Your task to perform on an android device: turn vacation reply on in the gmail app Image 0: 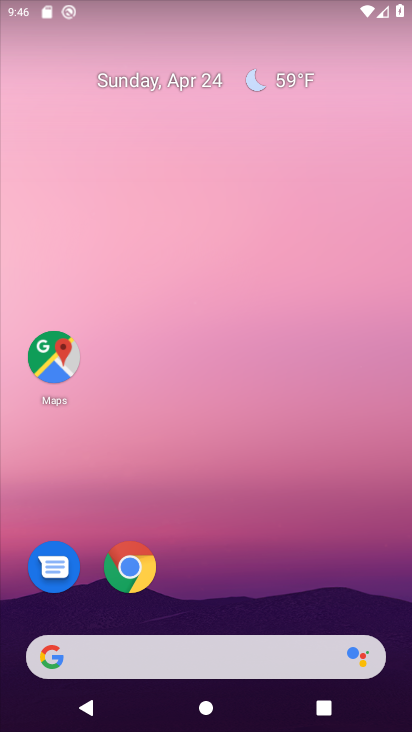
Step 0: drag from (355, 273) to (335, 84)
Your task to perform on an android device: turn vacation reply on in the gmail app Image 1: 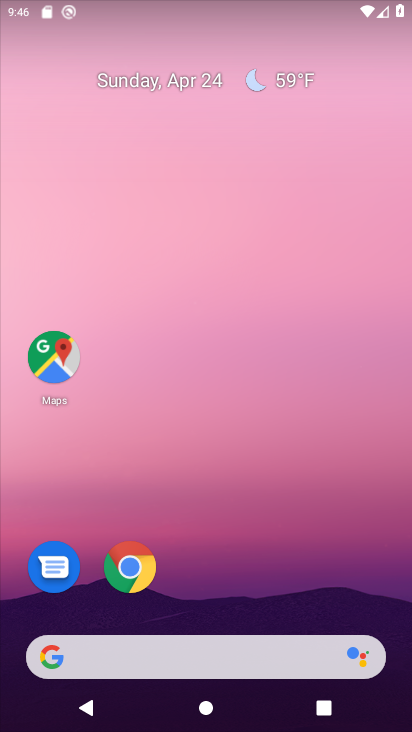
Step 1: drag from (385, 318) to (377, 201)
Your task to perform on an android device: turn vacation reply on in the gmail app Image 2: 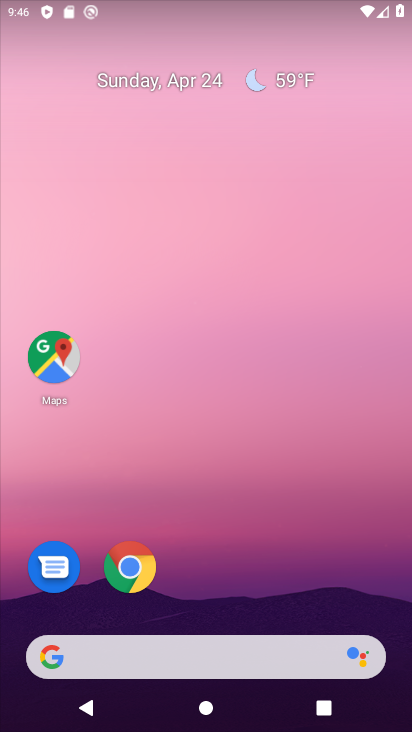
Step 2: drag from (384, 446) to (384, 216)
Your task to perform on an android device: turn vacation reply on in the gmail app Image 3: 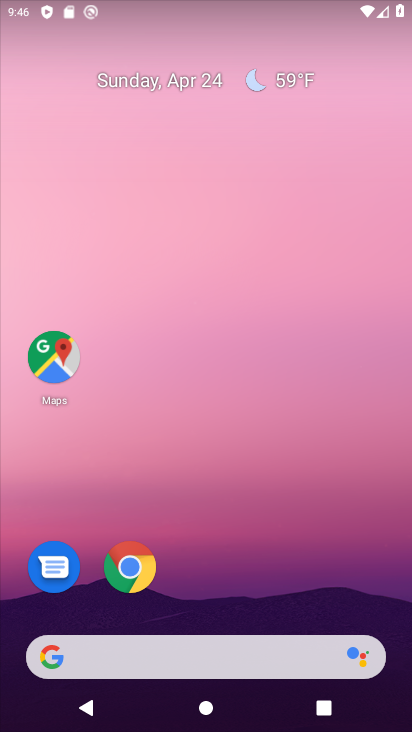
Step 3: drag from (402, 483) to (397, 177)
Your task to perform on an android device: turn vacation reply on in the gmail app Image 4: 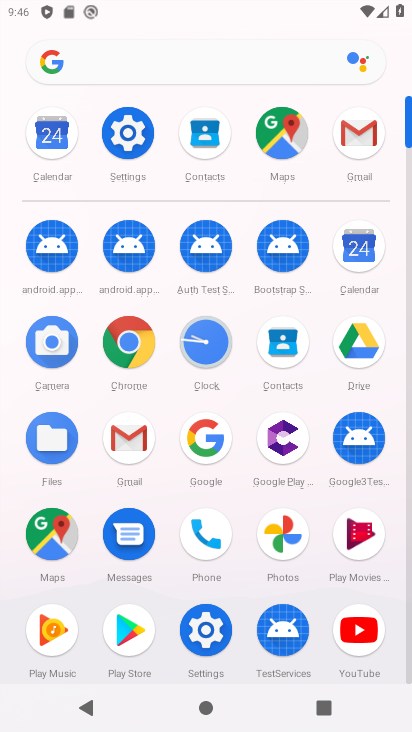
Step 4: click (355, 136)
Your task to perform on an android device: turn vacation reply on in the gmail app Image 5: 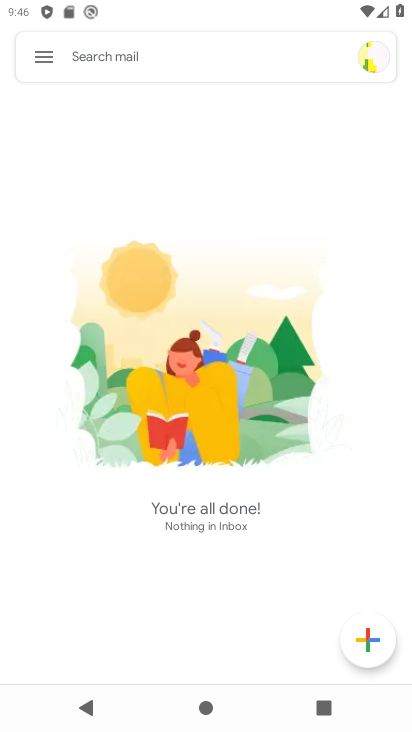
Step 5: click (42, 54)
Your task to perform on an android device: turn vacation reply on in the gmail app Image 6: 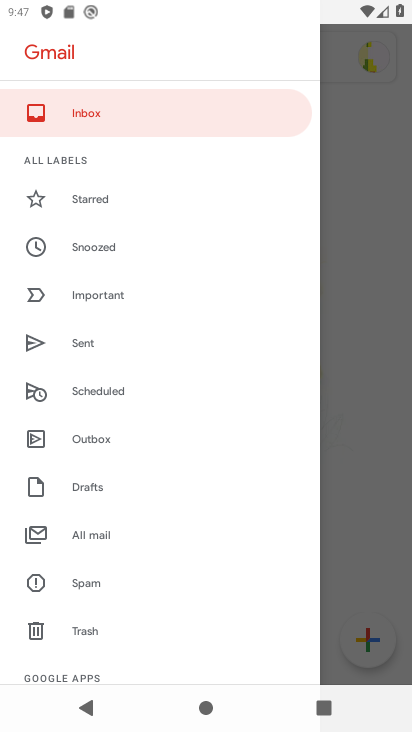
Step 6: drag from (229, 457) to (229, 333)
Your task to perform on an android device: turn vacation reply on in the gmail app Image 7: 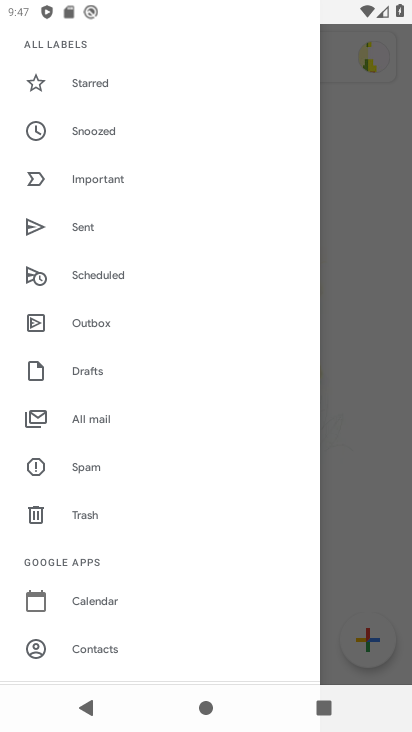
Step 7: drag from (193, 372) to (179, 263)
Your task to perform on an android device: turn vacation reply on in the gmail app Image 8: 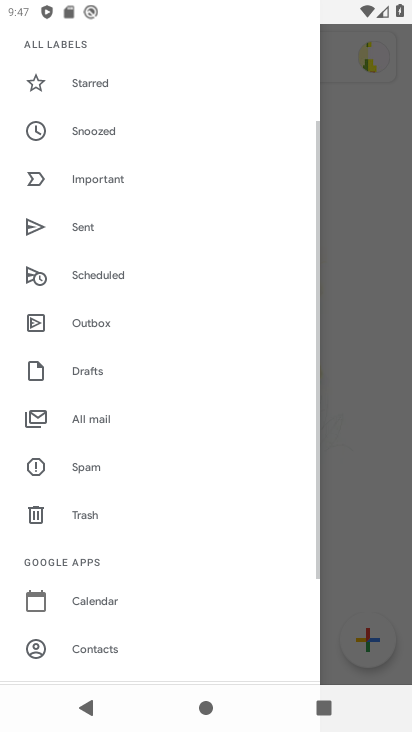
Step 8: click (233, 310)
Your task to perform on an android device: turn vacation reply on in the gmail app Image 9: 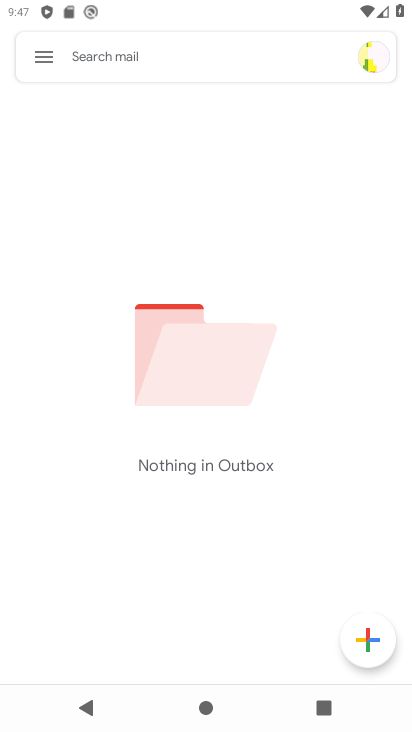
Step 9: click (53, 53)
Your task to perform on an android device: turn vacation reply on in the gmail app Image 10: 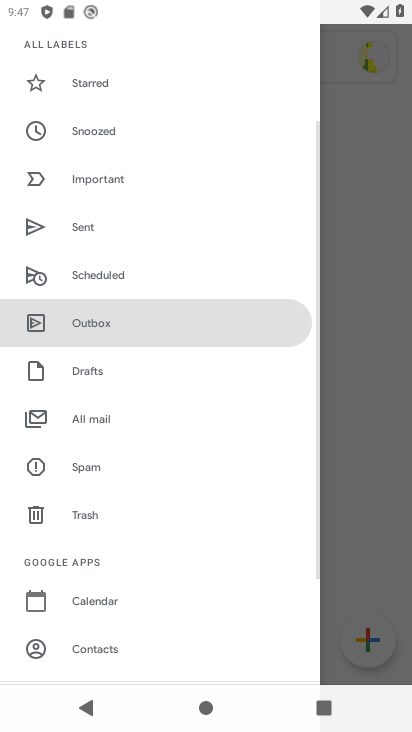
Step 10: drag from (249, 605) to (219, 123)
Your task to perform on an android device: turn vacation reply on in the gmail app Image 11: 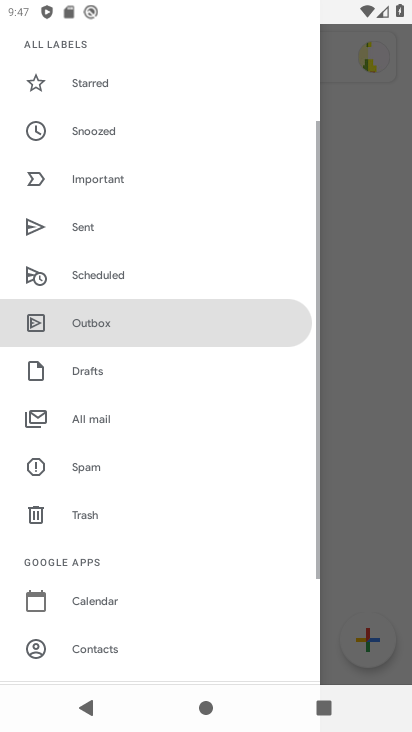
Step 11: drag from (251, 264) to (245, 204)
Your task to perform on an android device: turn vacation reply on in the gmail app Image 12: 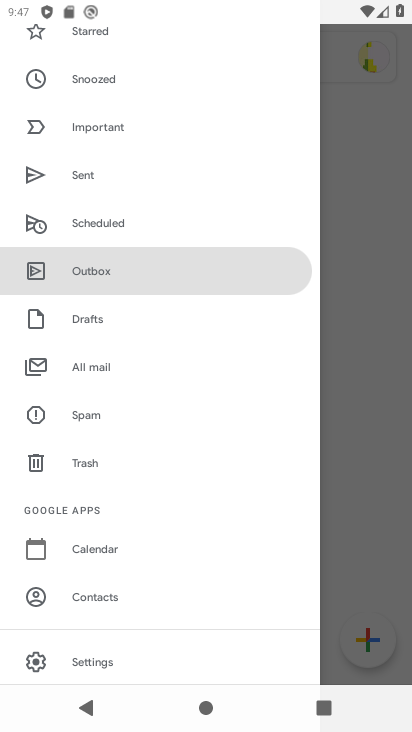
Step 12: drag from (250, 602) to (229, 338)
Your task to perform on an android device: turn vacation reply on in the gmail app Image 13: 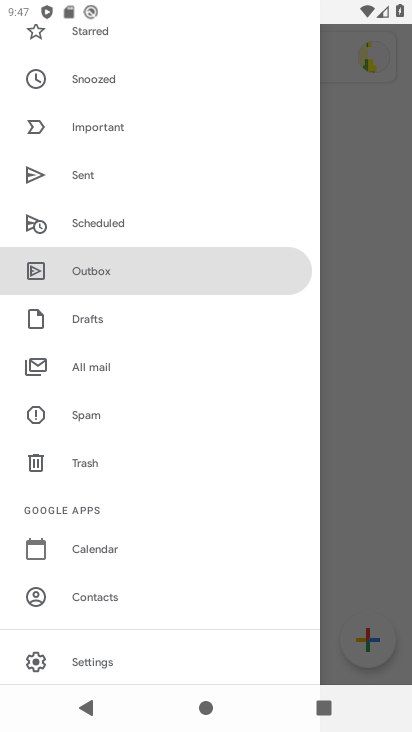
Step 13: click (90, 654)
Your task to perform on an android device: turn vacation reply on in the gmail app Image 14: 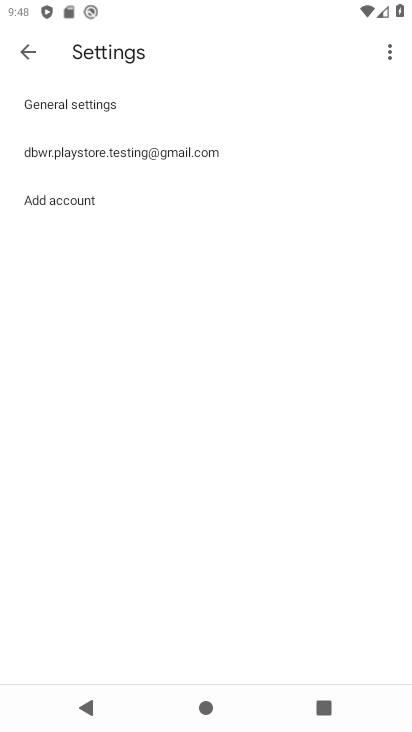
Step 14: click (51, 152)
Your task to perform on an android device: turn vacation reply on in the gmail app Image 15: 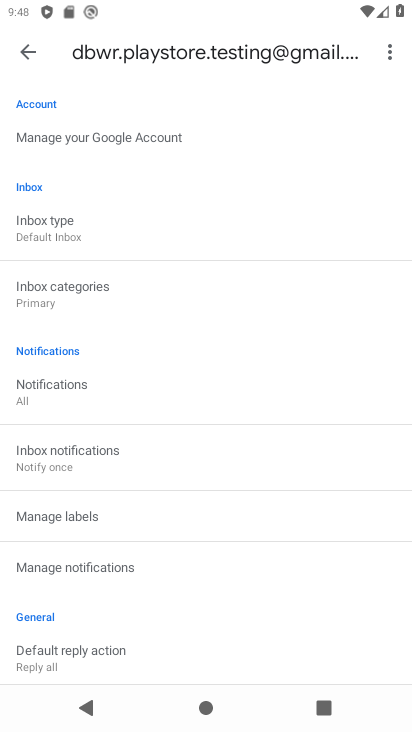
Step 15: drag from (268, 500) to (249, 334)
Your task to perform on an android device: turn vacation reply on in the gmail app Image 16: 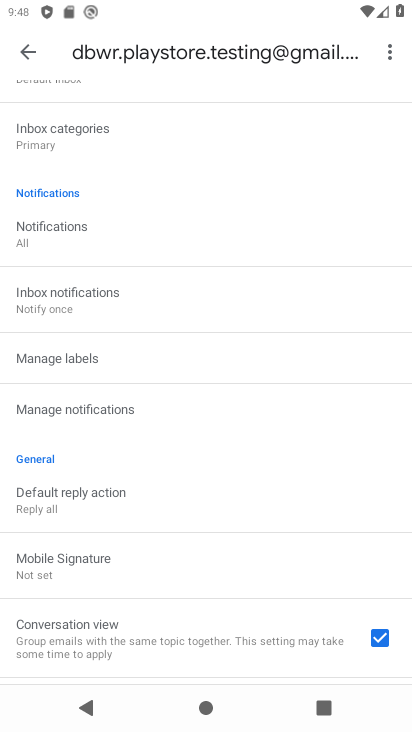
Step 16: drag from (273, 515) to (249, 219)
Your task to perform on an android device: turn vacation reply on in the gmail app Image 17: 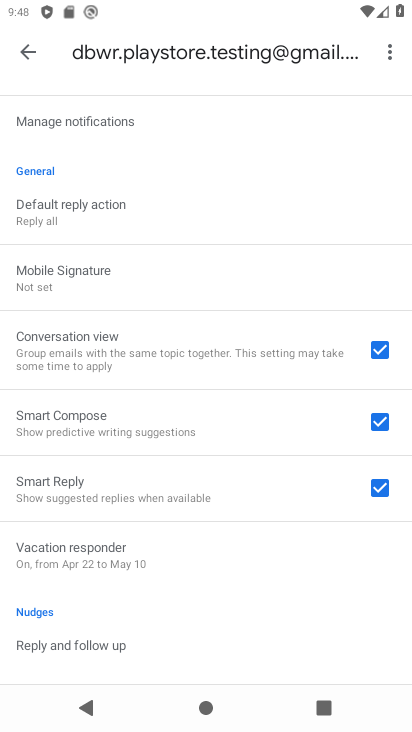
Step 17: click (245, 310)
Your task to perform on an android device: turn vacation reply on in the gmail app Image 18: 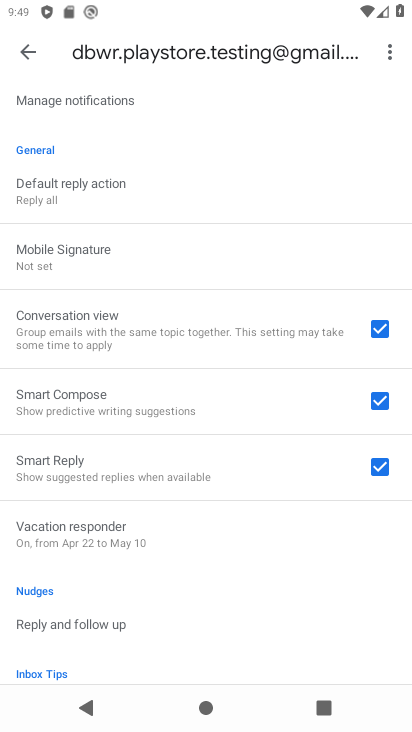
Step 18: click (76, 466)
Your task to perform on an android device: turn vacation reply on in the gmail app Image 19: 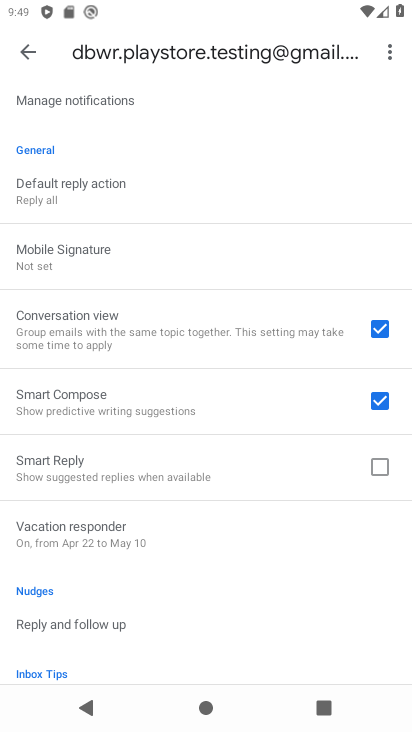
Step 19: click (379, 466)
Your task to perform on an android device: turn vacation reply on in the gmail app Image 20: 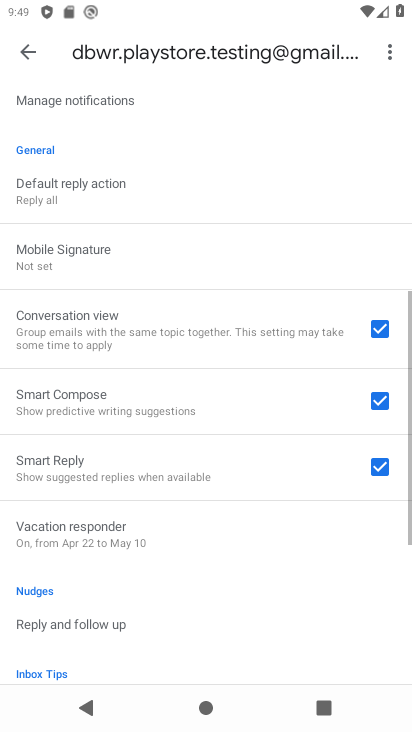
Step 20: task complete